Your task to perform on an android device: Open my contact list Image 0: 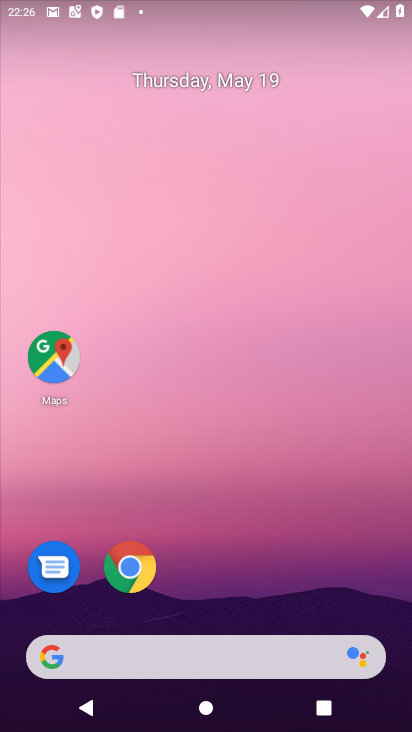
Step 0: drag from (209, 614) to (267, 221)
Your task to perform on an android device: Open my contact list Image 1: 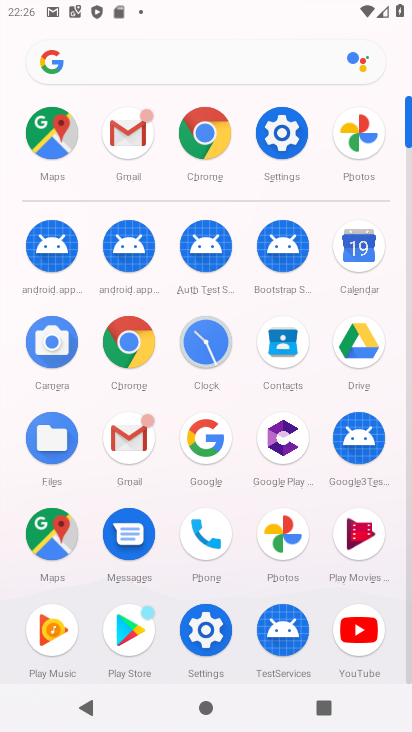
Step 1: click (278, 333)
Your task to perform on an android device: Open my contact list Image 2: 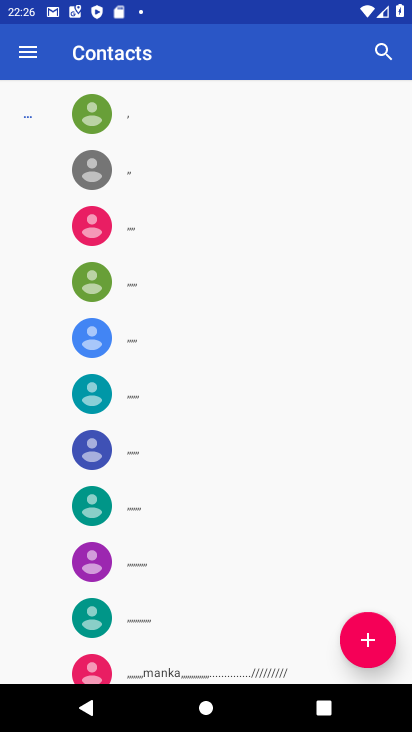
Step 2: task complete